Your task to perform on an android device: turn on notifications settings in the gmail app Image 0: 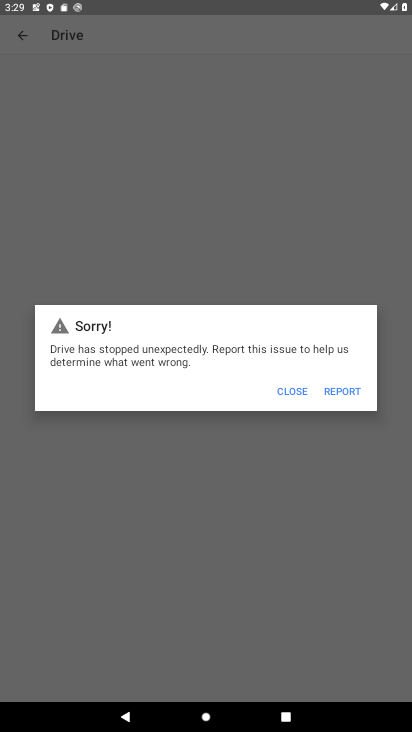
Step 0: press home button
Your task to perform on an android device: turn on notifications settings in the gmail app Image 1: 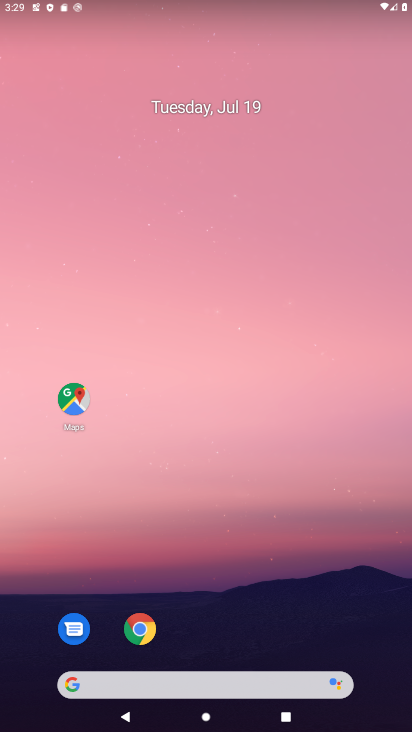
Step 1: drag from (226, 673) to (215, 19)
Your task to perform on an android device: turn on notifications settings in the gmail app Image 2: 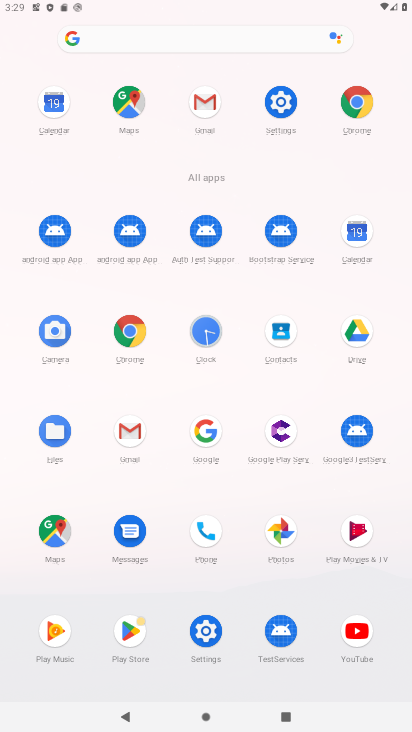
Step 2: click (210, 101)
Your task to perform on an android device: turn on notifications settings in the gmail app Image 3: 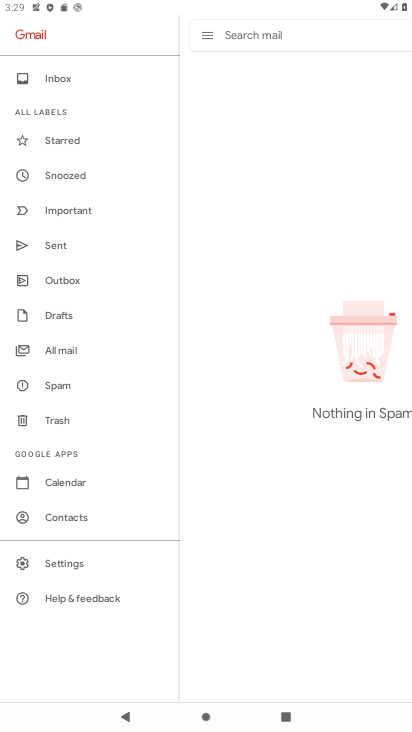
Step 3: click (61, 568)
Your task to perform on an android device: turn on notifications settings in the gmail app Image 4: 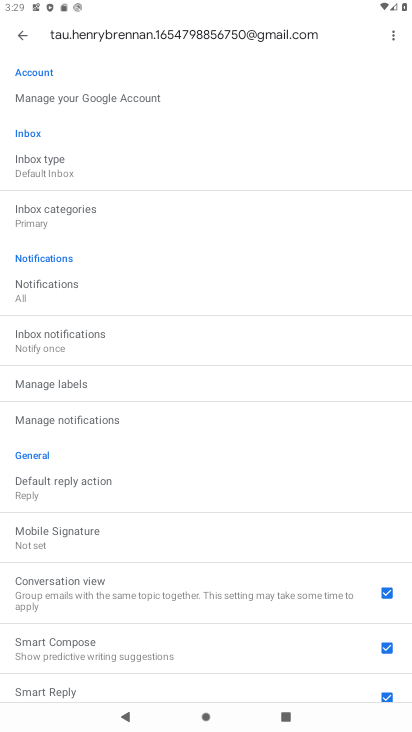
Step 4: click (74, 422)
Your task to perform on an android device: turn on notifications settings in the gmail app Image 5: 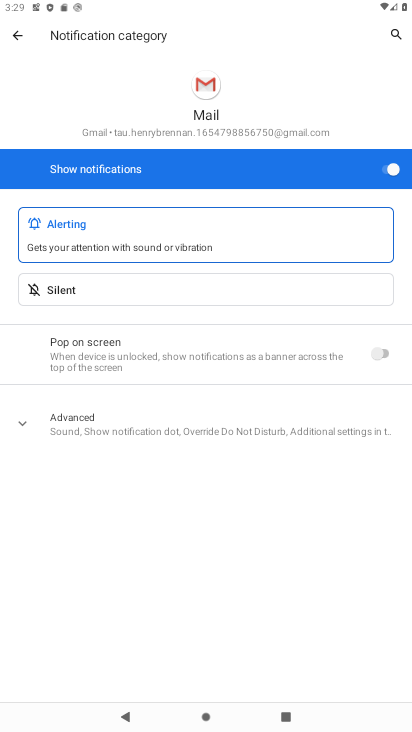
Step 5: task complete